Your task to perform on an android device: Open network settings Image 0: 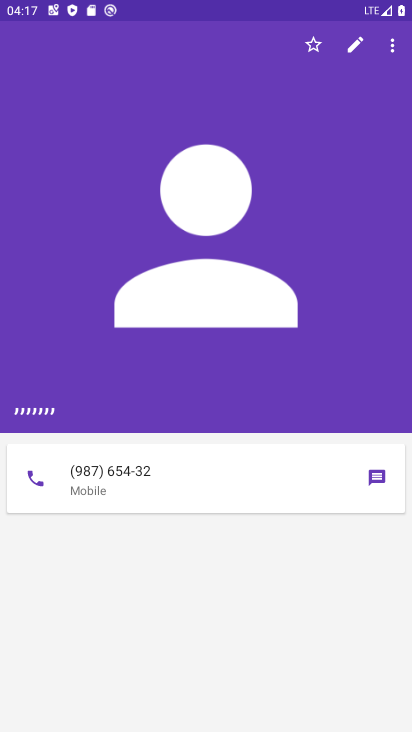
Step 0: drag from (267, 12) to (258, 633)
Your task to perform on an android device: Open network settings Image 1: 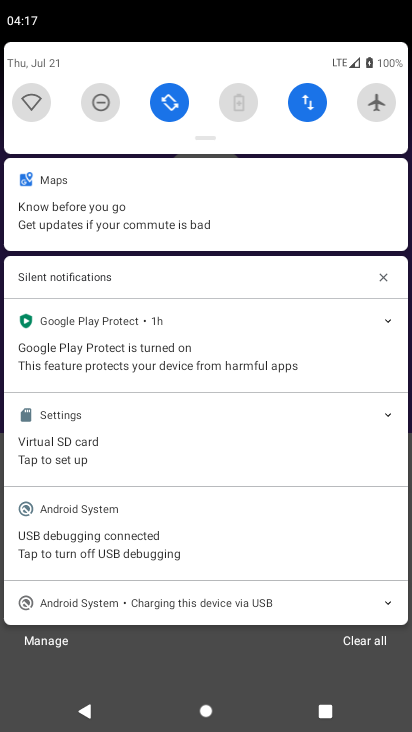
Step 1: click (298, 113)
Your task to perform on an android device: Open network settings Image 2: 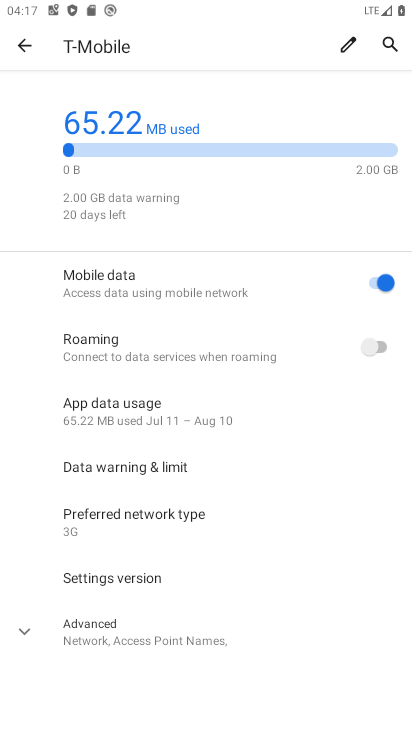
Step 2: task complete